Your task to perform on an android device: Go to sound settings Image 0: 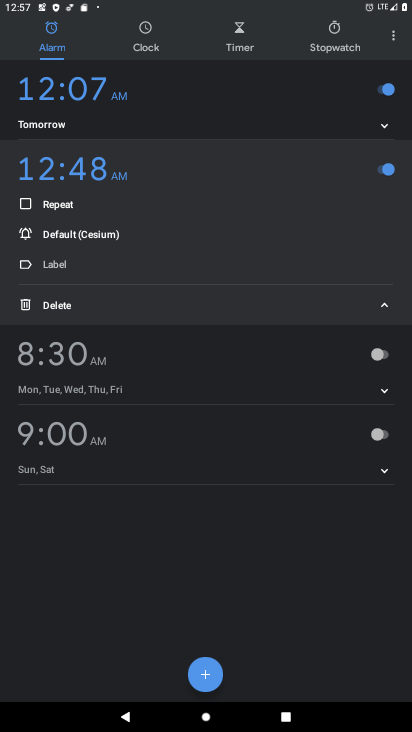
Step 0: press home button
Your task to perform on an android device: Go to sound settings Image 1: 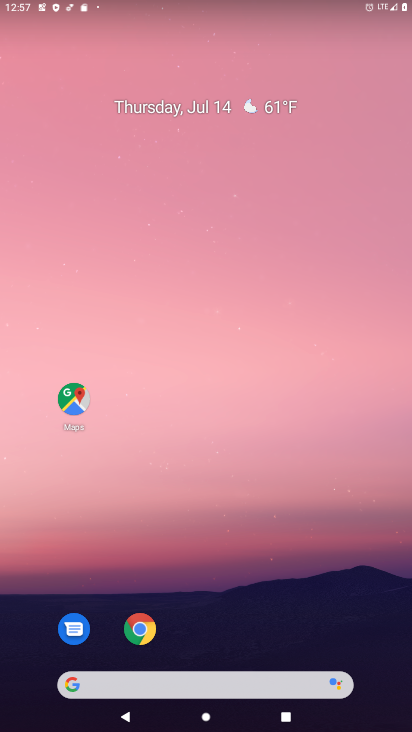
Step 1: drag from (224, 575) to (203, 177)
Your task to perform on an android device: Go to sound settings Image 2: 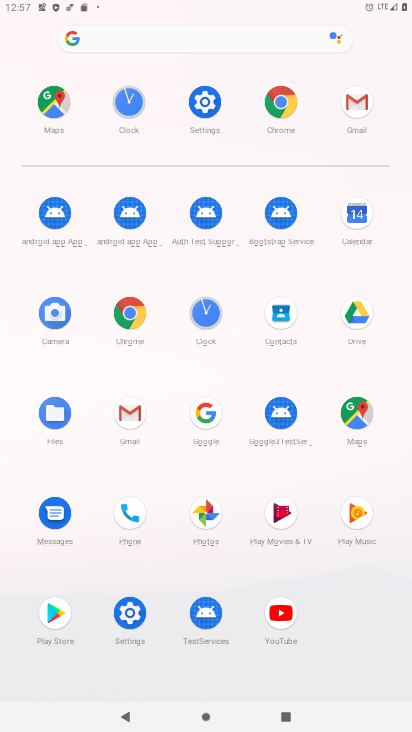
Step 2: click (205, 100)
Your task to perform on an android device: Go to sound settings Image 3: 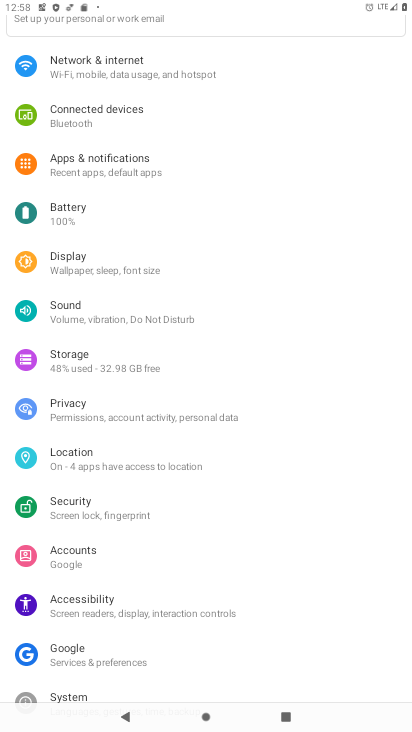
Step 3: click (79, 303)
Your task to perform on an android device: Go to sound settings Image 4: 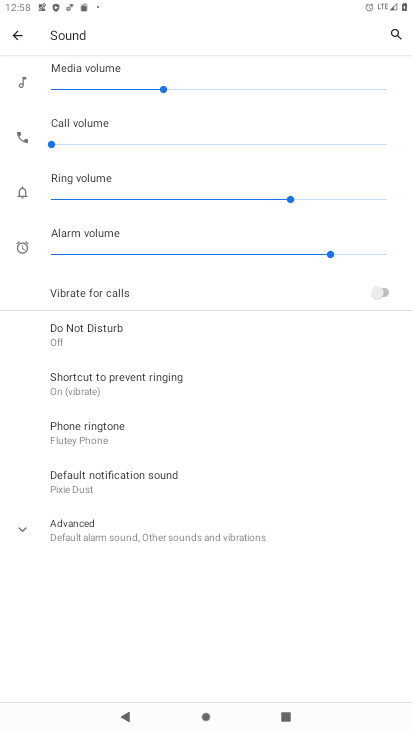
Step 4: task complete